Your task to perform on an android device: See recent photos Image 0: 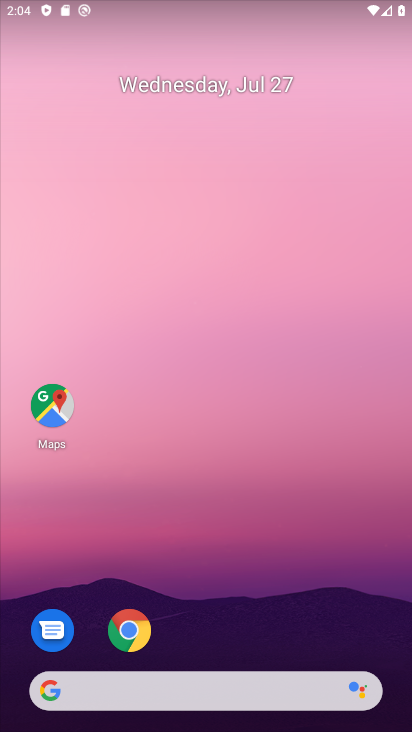
Step 0: drag from (276, 694) to (233, 254)
Your task to perform on an android device: See recent photos Image 1: 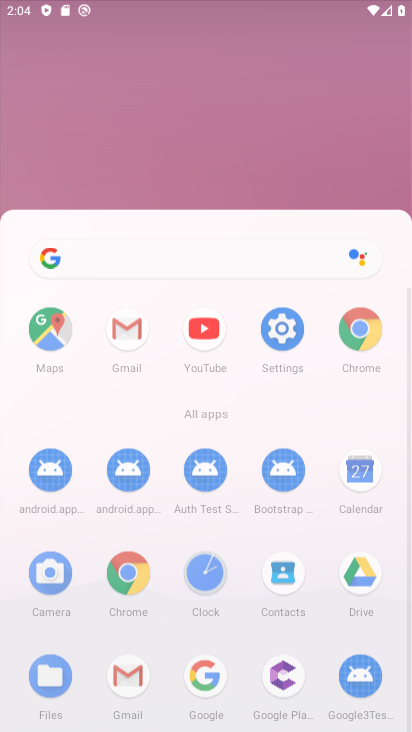
Step 1: drag from (259, 235) to (241, 106)
Your task to perform on an android device: See recent photos Image 2: 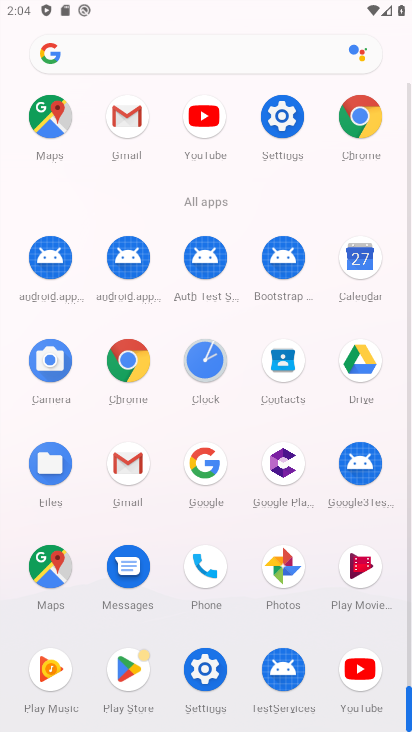
Step 2: click (280, 566)
Your task to perform on an android device: See recent photos Image 3: 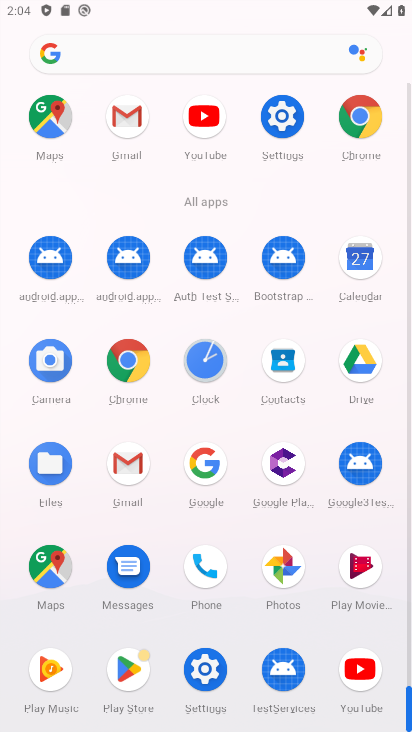
Step 3: click (280, 566)
Your task to perform on an android device: See recent photos Image 4: 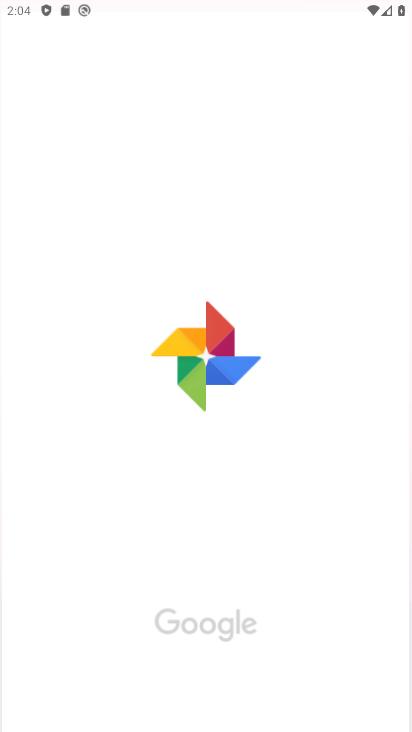
Step 4: click (280, 565)
Your task to perform on an android device: See recent photos Image 5: 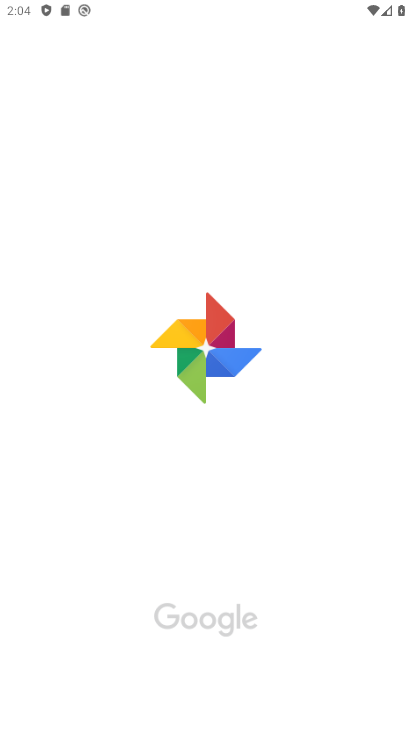
Step 5: click (280, 565)
Your task to perform on an android device: See recent photos Image 6: 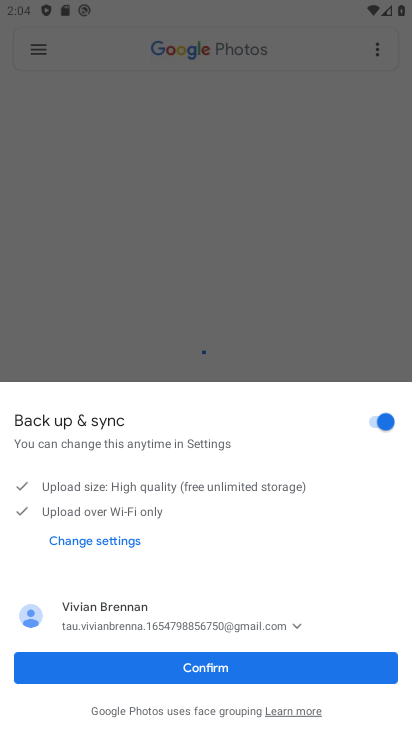
Step 6: click (231, 671)
Your task to perform on an android device: See recent photos Image 7: 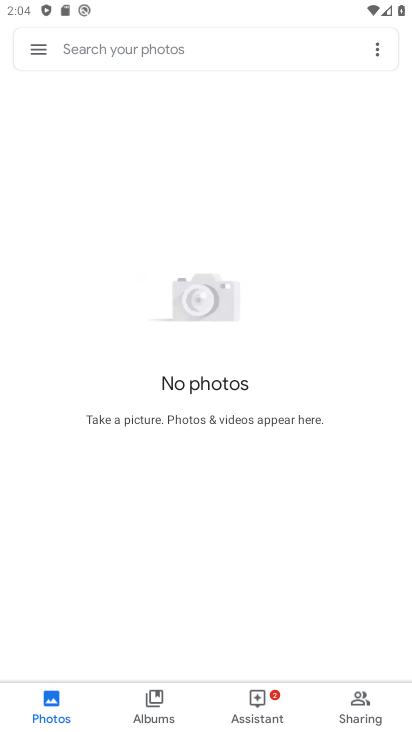
Step 7: task complete